Your task to perform on an android device: Open the stopwatch Image 0: 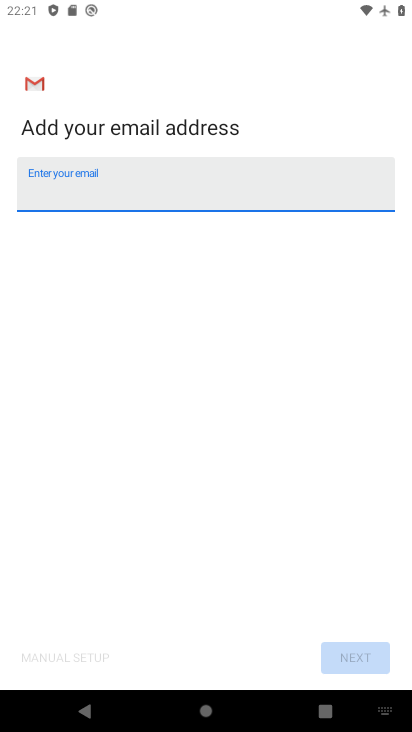
Step 0: press home button
Your task to perform on an android device: Open the stopwatch Image 1: 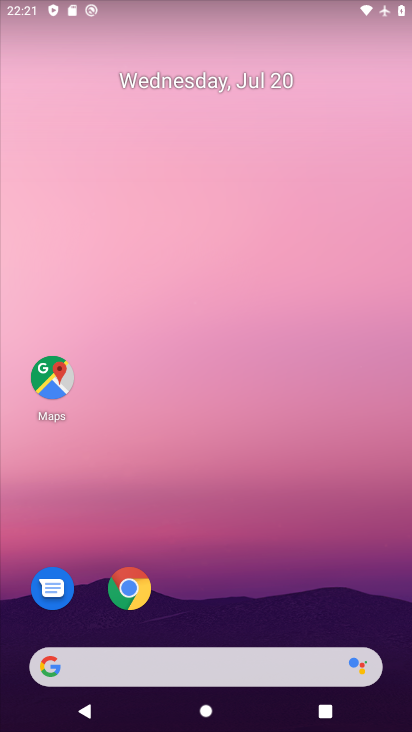
Step 1: drag from (365, 608) to (332, 0)
Your task to perform on an android device: Open the stopwatch Image 2: 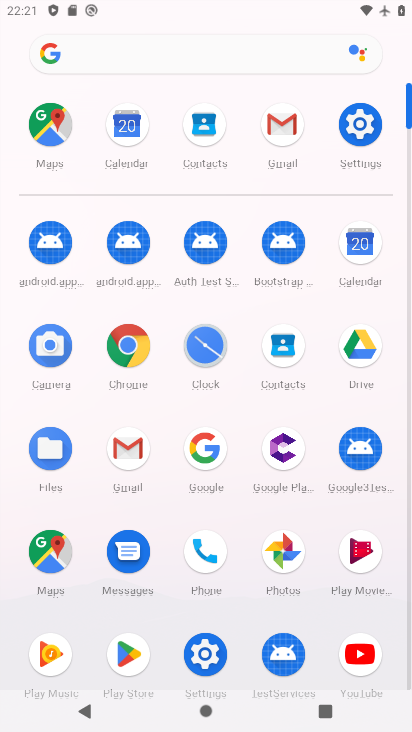
Step 2: click (204, 347)
Your task to perform on an android device: Open the stopwatch Image 3: 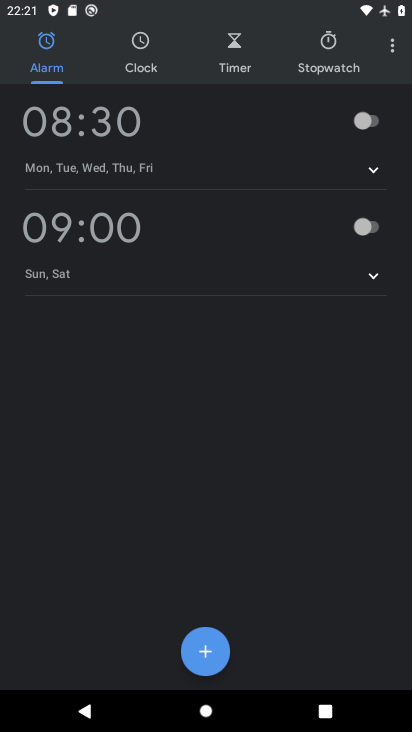
Step 3: click (332, 42)
Your task to perform on an android device: Open the stopwatch Image 4: 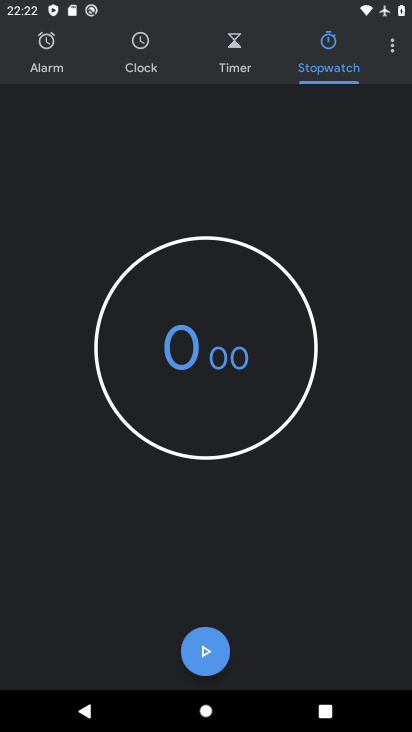
Step 4: task complete